Your task to perform on an android device: Open privacy settings Image 0: 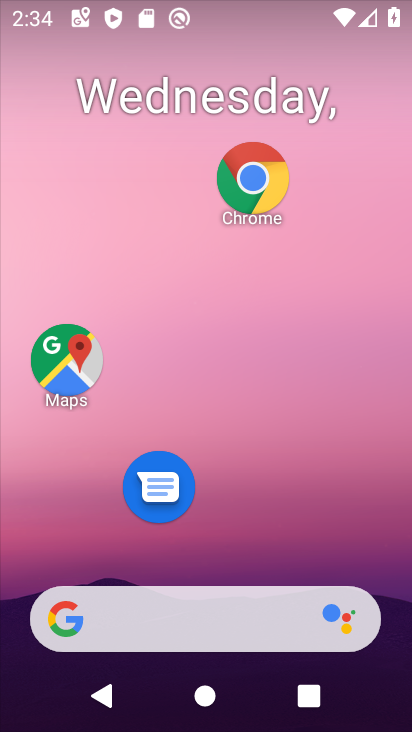
Step 0: drag from (274, 548) to (337, 74)
Your task to perform on an android device: Open privacy settings Image 1: 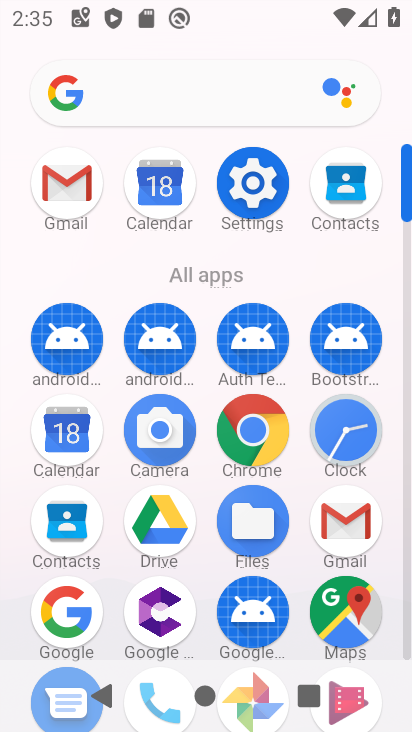
Step 1: click (254, 184)
Your task to perform on an android device: Open privacy settings Image 2: 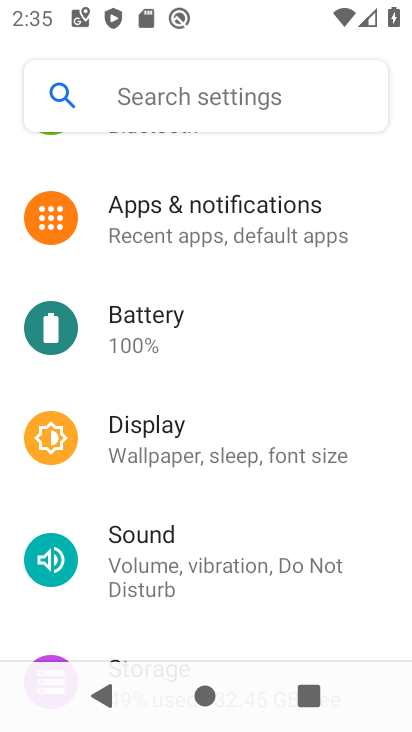
Step 2: drag from (179, 550) to (191, 349)
Your task to perform on an android device: Open privacy settings Image 3: 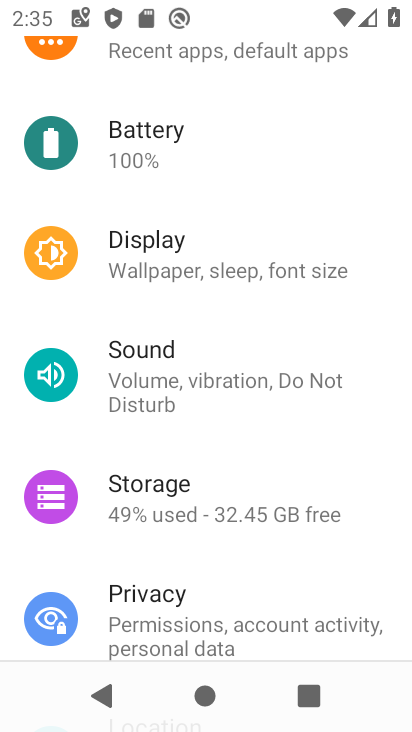
Step 3: drag from (208, 476) to (222, 322)
Your task to perform on an android device: Open privacy settings Image 4: 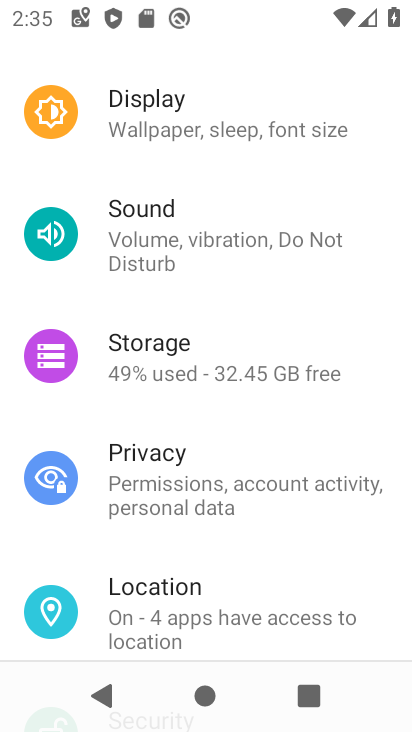
Step 4: drag from (232, 537) to (232, 347)
Your task to perform on an android device: Open privacy settings Image 5: 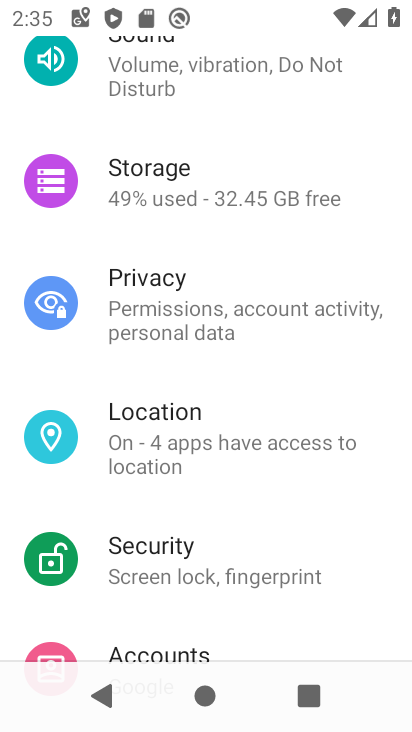
Step 5: drag from (226, 573) to (232, 300)
Your task to perform on an android device: Open privacy settings Image 6: 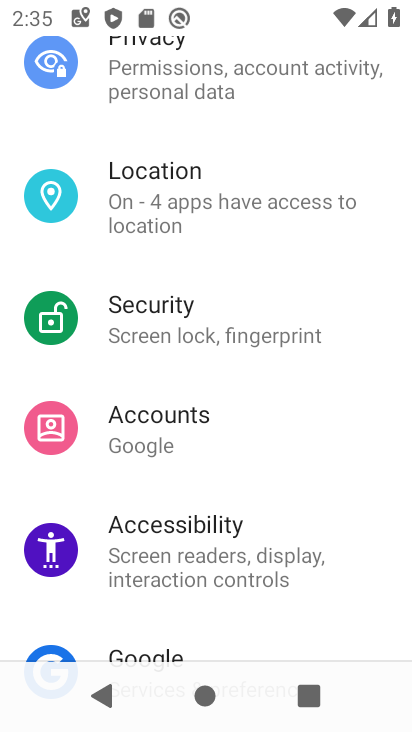
Step 6: drag from (219, 543) to (216, 309)
Your task to perform on an android device: Open privacy settings Image 7: 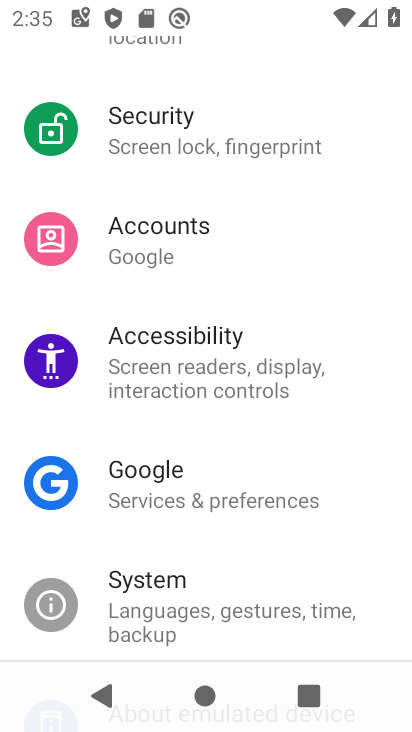
Step 7: drag from (203, 260) to (261, 485)
Your task to perform on an android device: Open privacy settings Image 8: 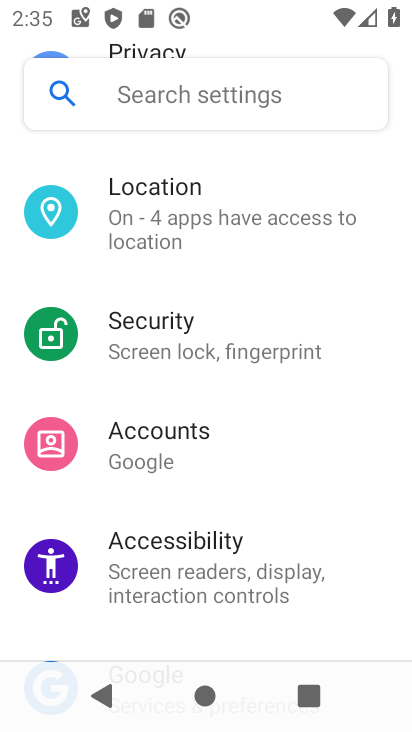
Step 8: drag from (196, 246) to (259, 509)
Your task to perform on an android device: Open privacy settings Image 9: 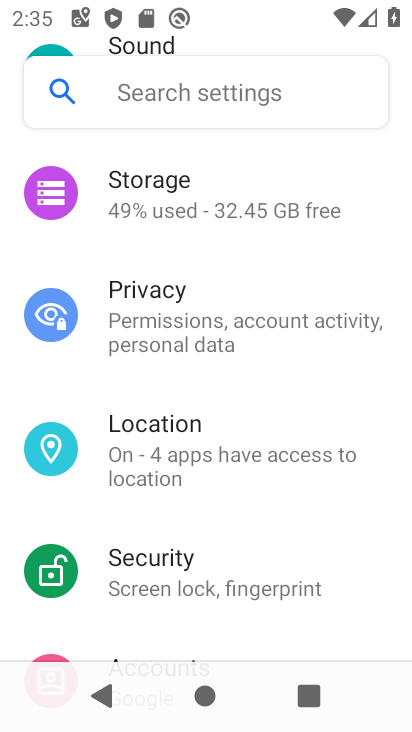
Step 9: click (191, 331)
Your task to perform on an android device: Open privacy settings Image 10: 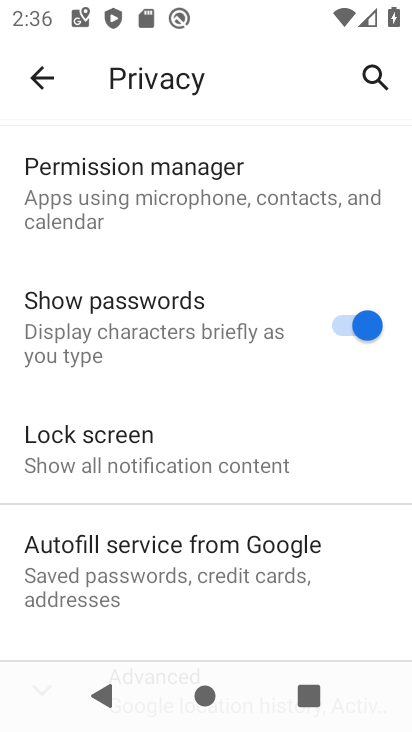
Step 10: task complete